Your task to perform on an android device: Show me popular games on the Play Store Image 0: 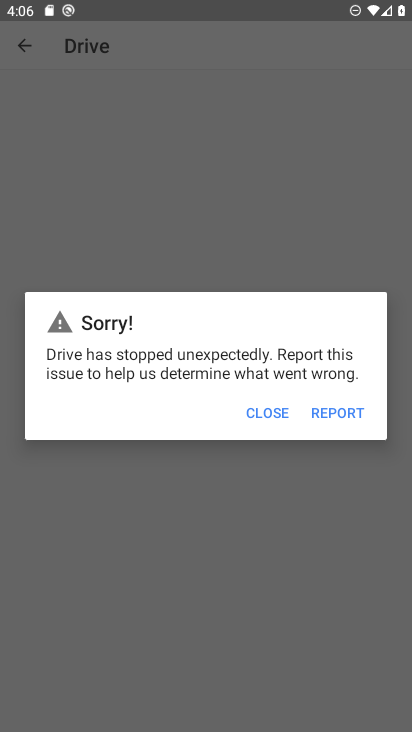
Step 0: press home button
Your task to perform on an android device: Show me popular games on the Play Store Image 1: 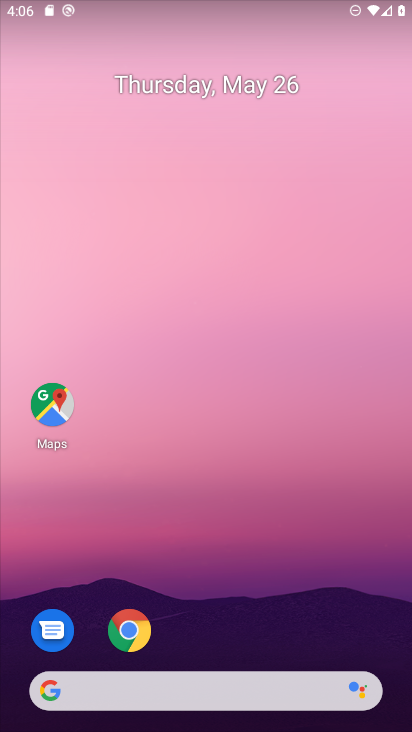
Step 1: drag from (258, 601) to (202, 159)
Your task to perform on an android device: Show me popular games on the Play Store Image 2: 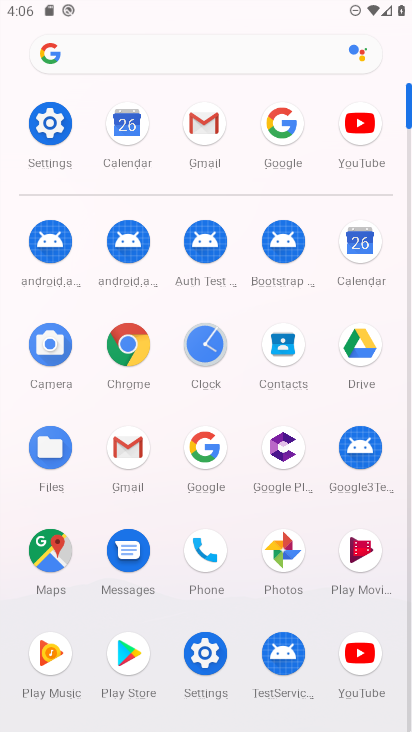
Step 2: click (132, 654)
Your task to perform on an android device: Show me popular games on the Play Store Image 3: 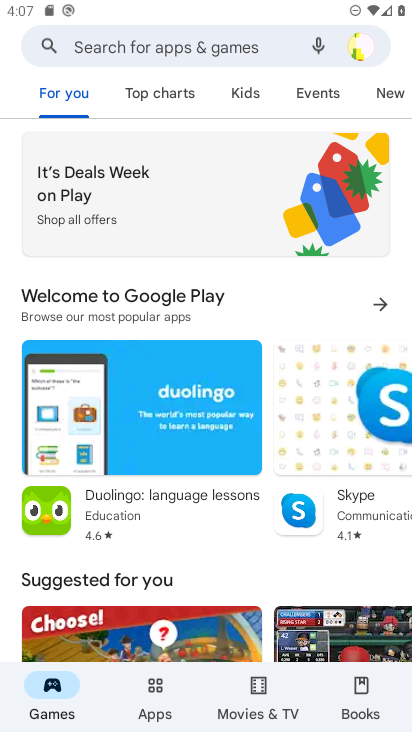
Step 3: click (203, 48)
Your task to perform on an android device: Show me popular games on the Play Store Image 4: 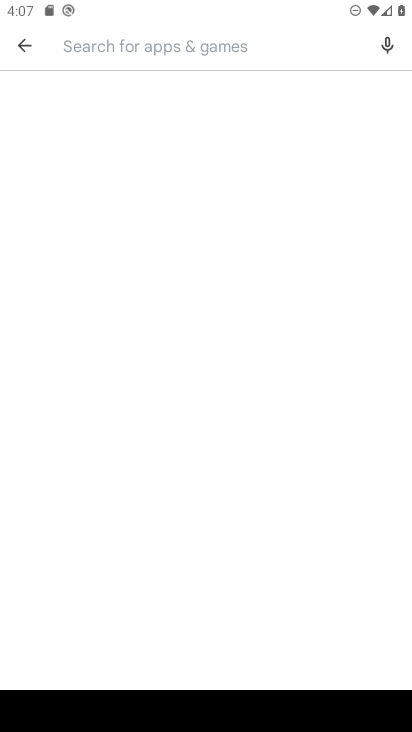
Step 4: type "popular games"
Your task to perform on an android device: Show me popular games on the Play Store Image 5: 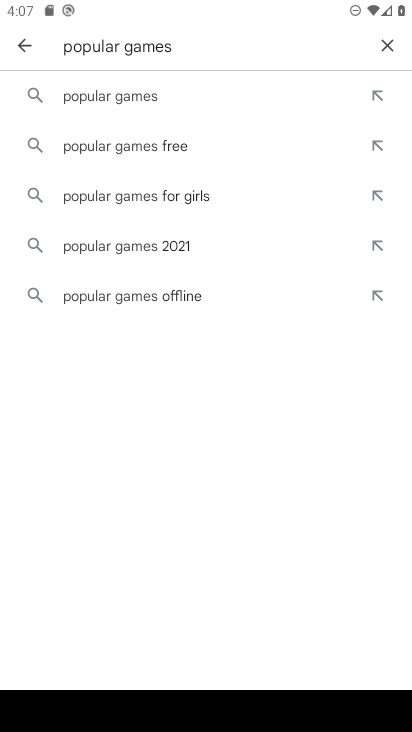
Step 5: click (141, 95)
Your task to perform on an android device: Show me popular games on the Play Store Image 6: 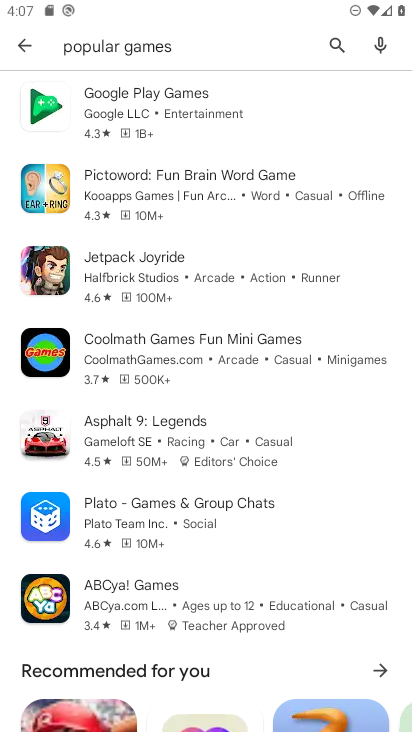
Step 6: task complete